Your task to perform on an android device: turn off javascript in the chrome app Image 0: 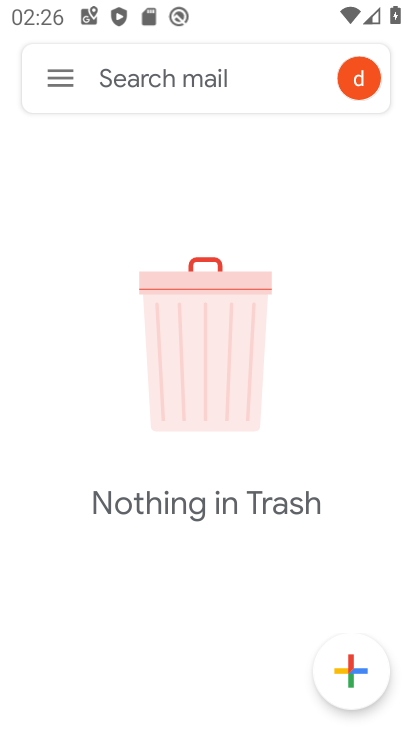
Step 0: press home button
Your task to perform on an android device: turn off javascript in the chrome app Image 1: 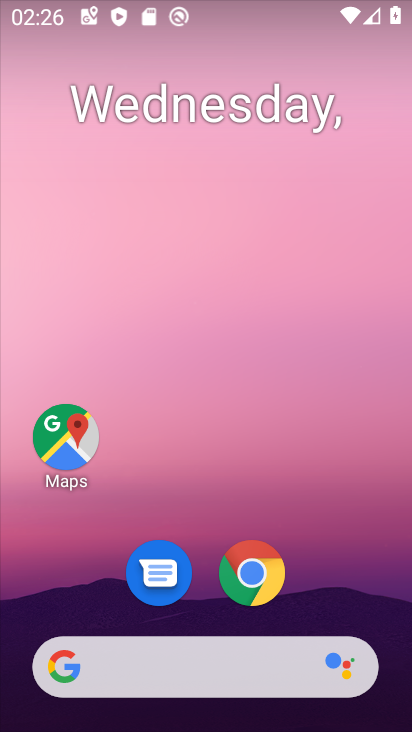
Step 1: click (254, 569)
Your task to perform on an android device: turn off javascript in the chrome app Image 2: 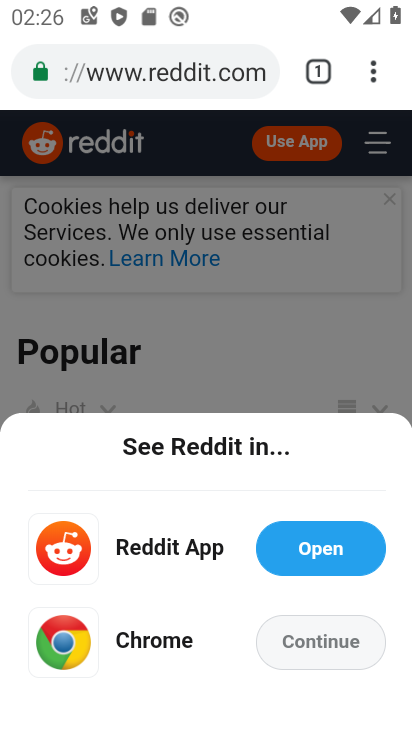
Step 2: click (370, 73)
Your task to perform on an android device: turn off javascript in the chrome app Image 3: 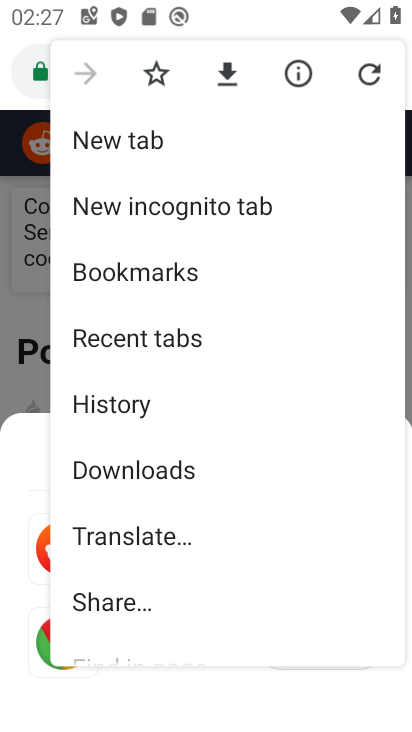
Step 3: drag from (169, 432) to (202, 294)
Your task to perform on an android device: turn off javascript in the chrome app Image 4: 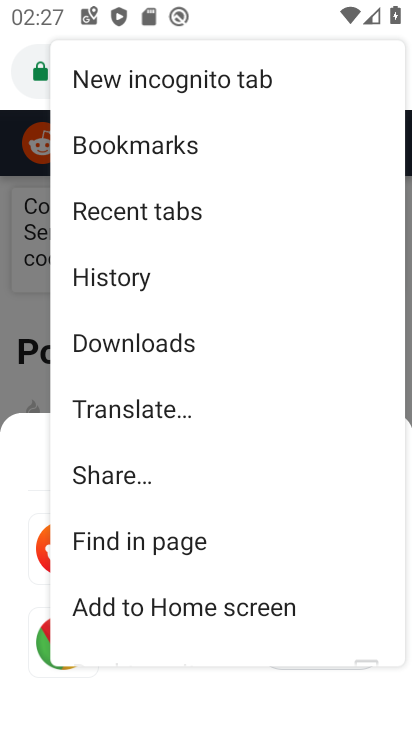
Step 4: drag from (159, 484) to (201, 330)
Your task to perform on an android device: turn off javascript in the chrome app Image 5: 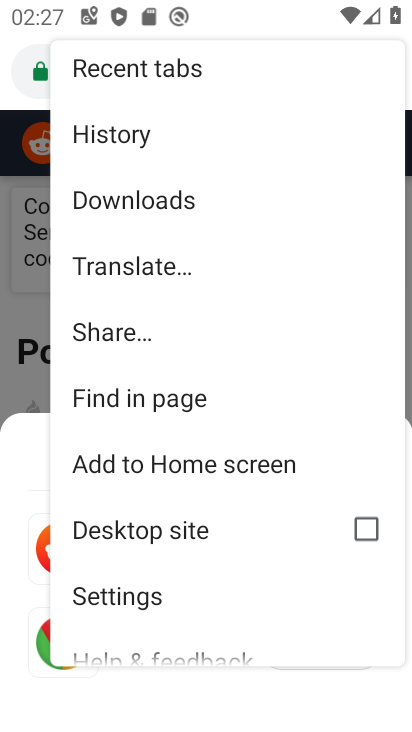
Step 5: drag from (185, 555) to (245, 350)
Your task to perform on an android device: turn off javascript in the chrome app Image 6: 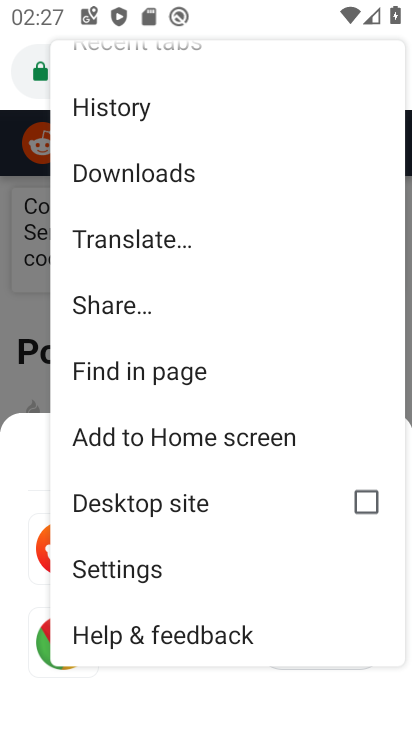
Step 6: click (149, 566)
Your task to perform on an android device: turn off javascript in the chrome app Image 7: 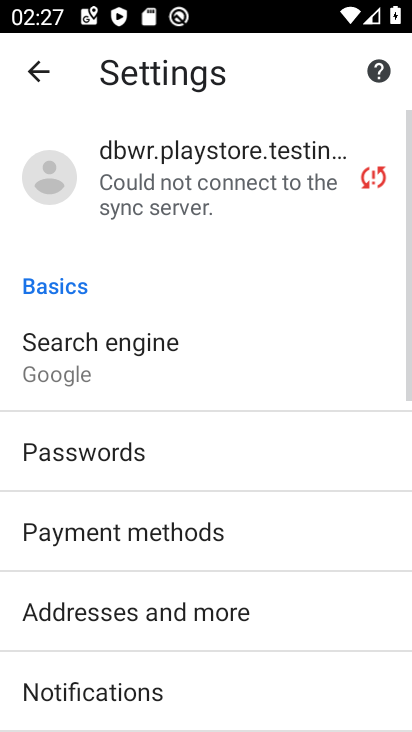
Step 7: drag from (186, 500) to (255, 294)
Your task to perform on an android device: turn off javascript in the chrome app Image 8: 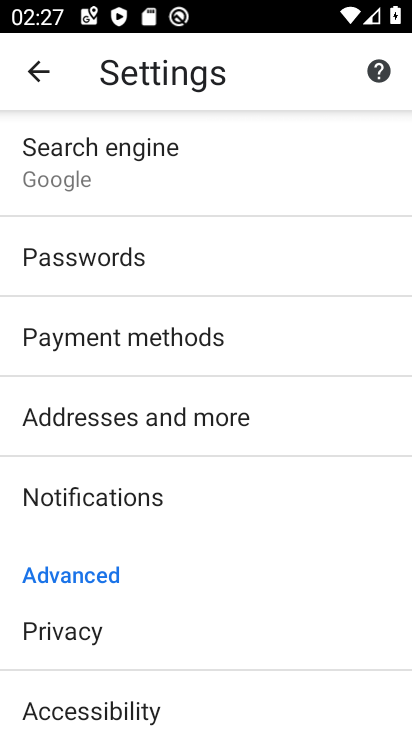
Step 8: drag from (180, 507) to (264, 337)
Your task to perform on an android device: turn off javascript in the chrome app Image 9: 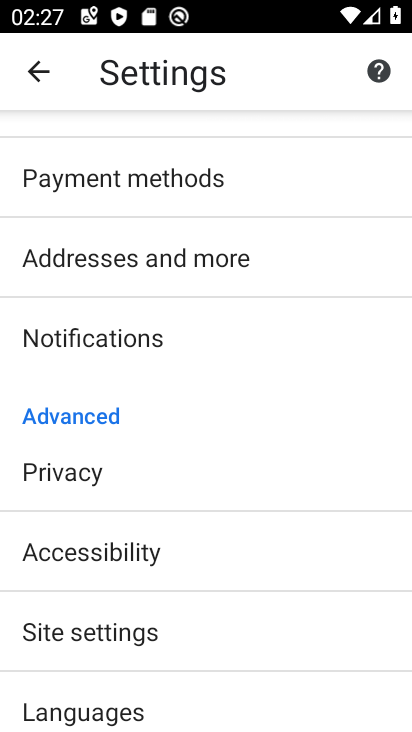
Step 9: drag from (180, 542) to (242, 424)
Your task to perform on an android device: turn off javascript in the chrome app Image 10: 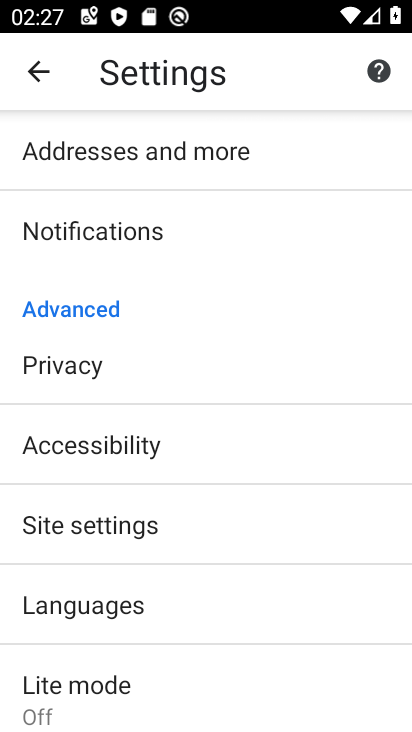
Step 10: drag from (140, 586) to (223, 458)
Your task to perform on an android device: turn off javascript in the chrome app Image 11: 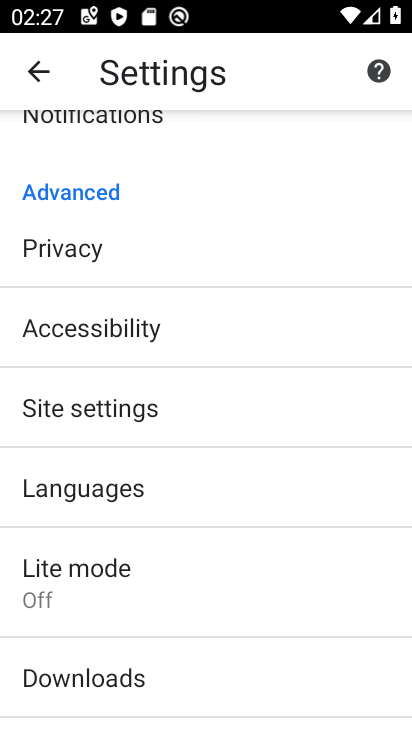
Step 11: click (138, 408)
Your task to perform on an android device: turn off javascript in the chrome app Image 12: 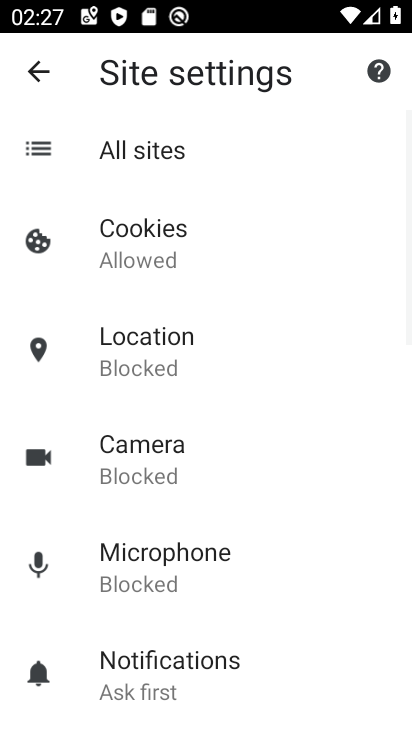
Step 12: drag from (182, 521) to (253, 371)
Your task to perform on an android device: turn off javascript in the chrome app Image 13: 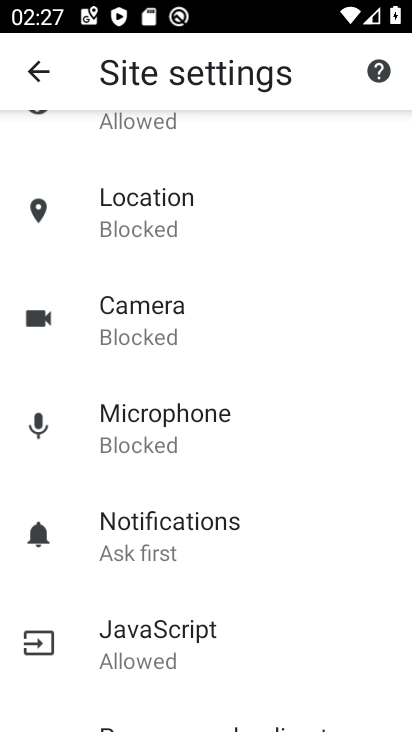
Step 13: drag from (212, 554) to (294, 392)
Your task to perform on an android device: turn off javascript in the chrome app Image 14: 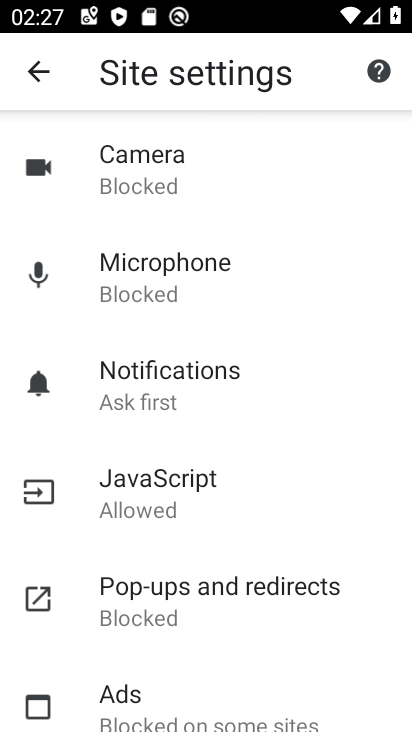
Step 14: click (188, 487)
Your task to perform on an android device: turn off javascript in the chrome app Image 15: 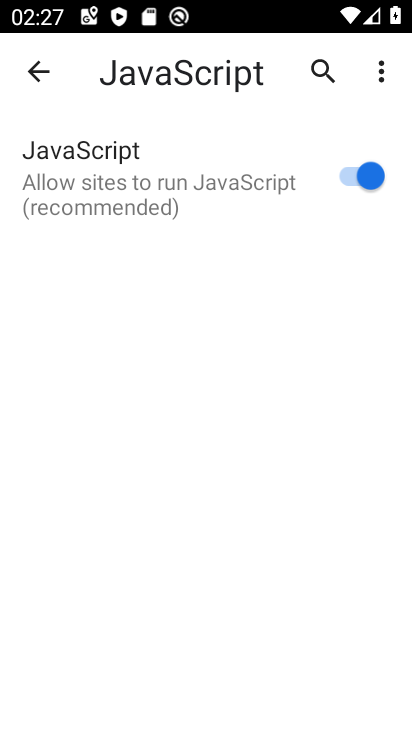
Step 15: click (373, 172)
Your task to perform on an android device: turn off javascript in the chrome app Image 16: 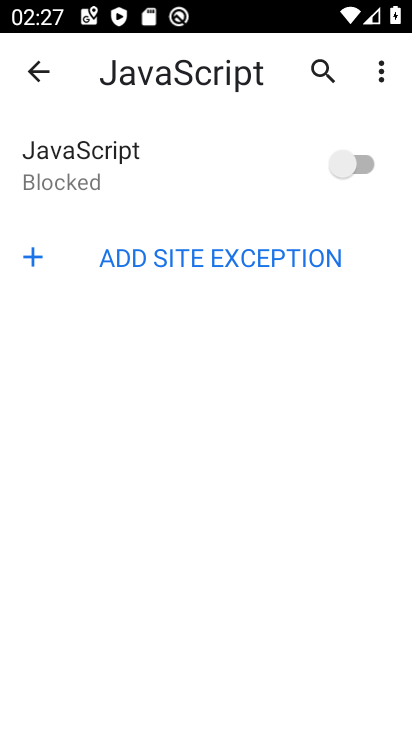
Step 16: task complete